Your task to perform on an android device: see creations saved in the google photos Image 0: 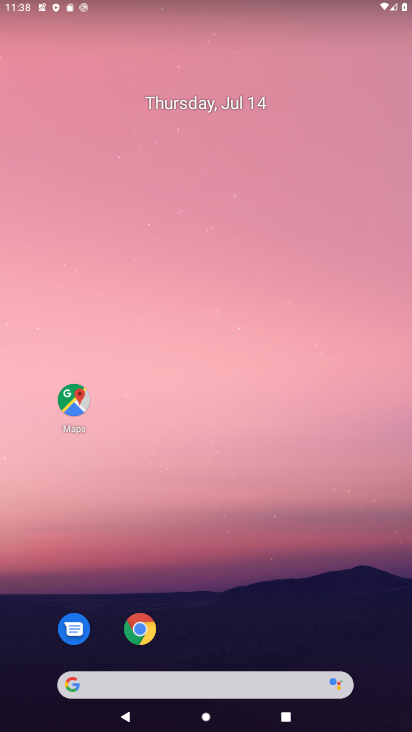
Step 0: press home button
Your task to perform on an android device: see creations saved in the google photos Image 1: 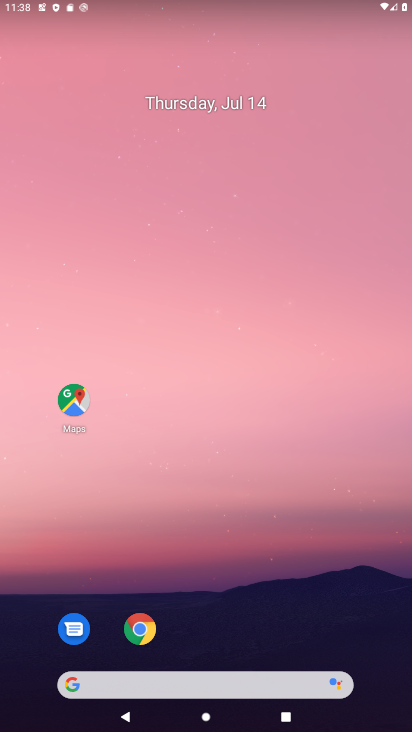
Step 1: drag from (246, 554) to (384, 317)
Your task to perform on an android device: see creations saved in the google photos Image 2: 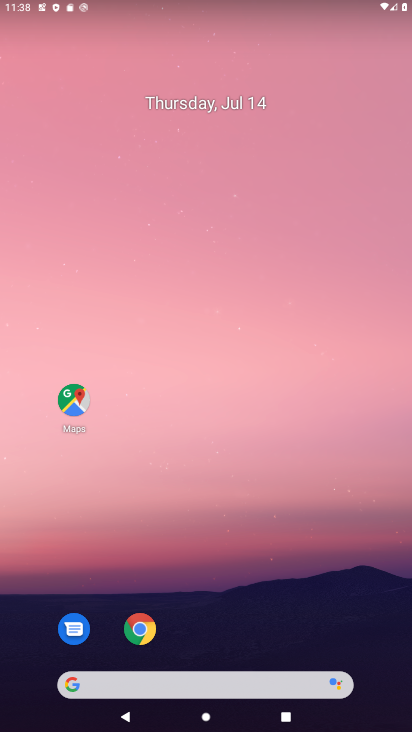
Step 2: drag from (225, 515) to (396, 383)
Your task to perform on an android device: see creations saved in the google photos Image 3: 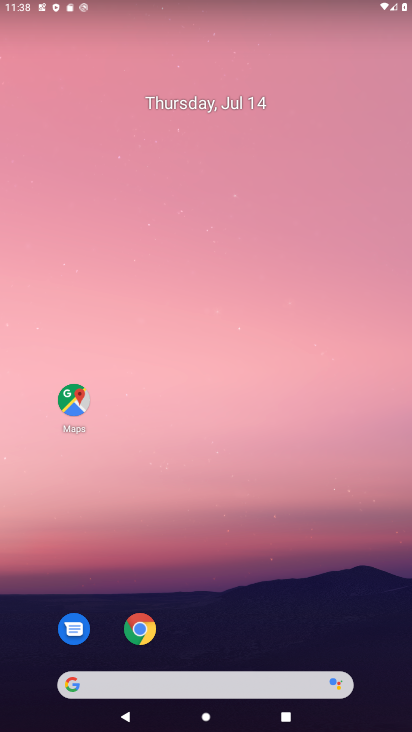
Step 3: drag from (276, 606) to (399, 3)
Your task to perform on an android device: see creations saved in the google photos Image 4: 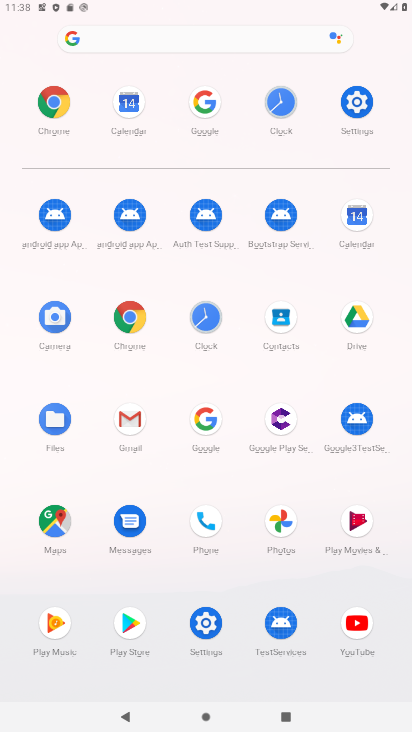
Step 4: click (280, 528)
Your task to perform on an android device: see creations saved in the google photos Image 5: 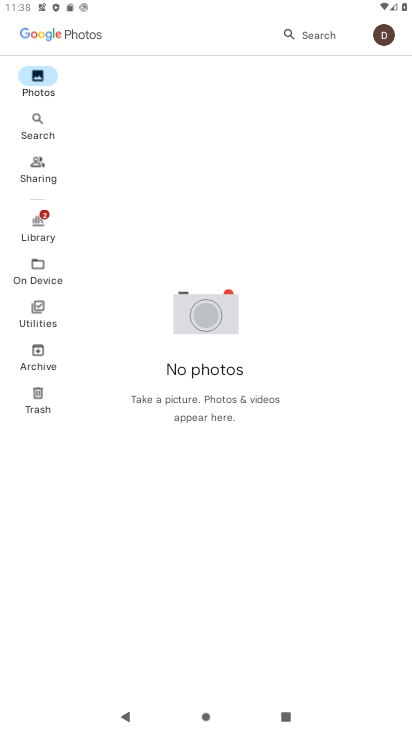
Step 5: click (38, 129)
Your task to perform on an android device: see creations saved in the google photos Image 6: 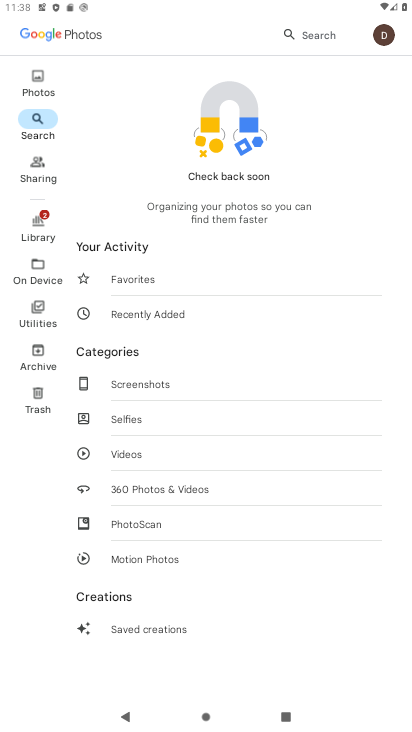
Step 6: click (143, 626)
Your task to perform on an android device: see creations saved in the google photos Image 7: 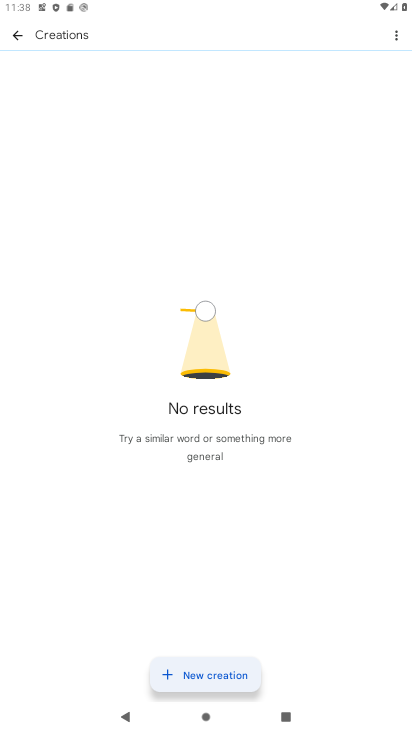
Step 7: task complete